Your task to perform on an android device: Open CNN.com Image 0: 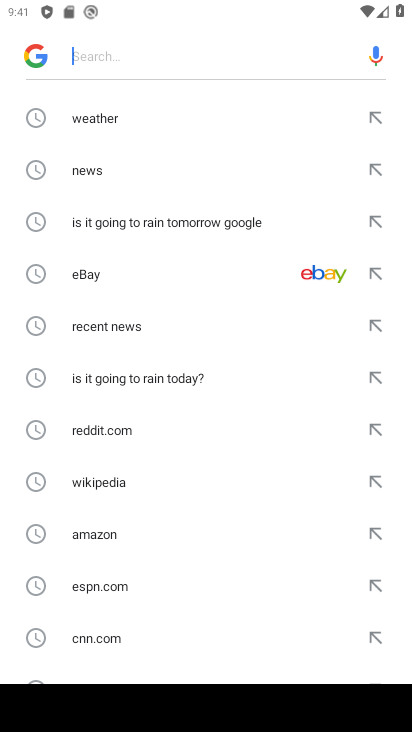
Step 0: press home button
Your task to perform on an android device: Open CNN.com Image 1: 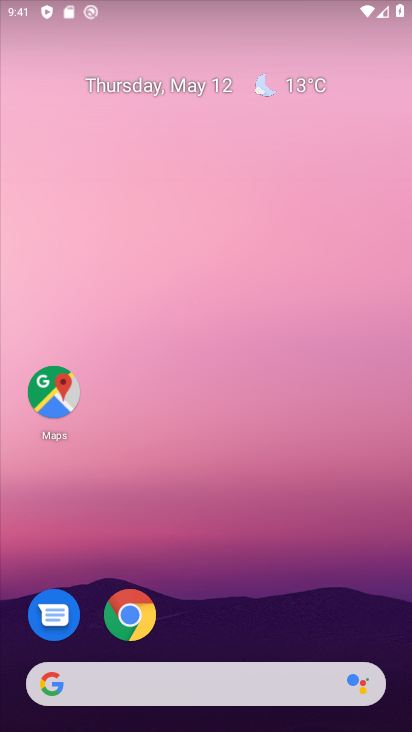
Step 1: drag from (265, 579) to (258, 69)
Your task to perform on an android device: Open CNN.com Image 2: 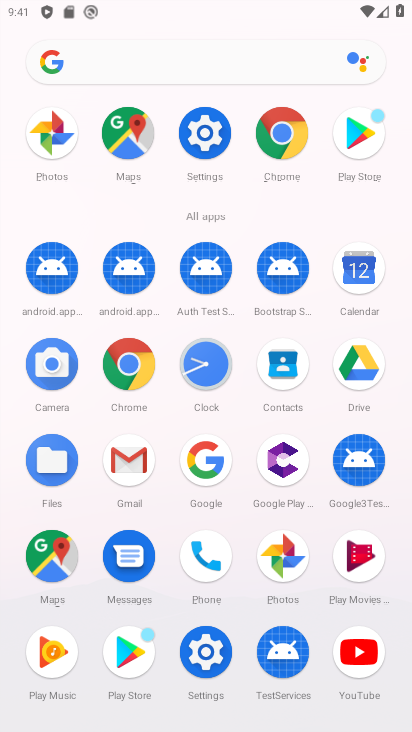
Step 2: click (280, 157)
Your task to perform on an android device: Open CNN.com Image 3: 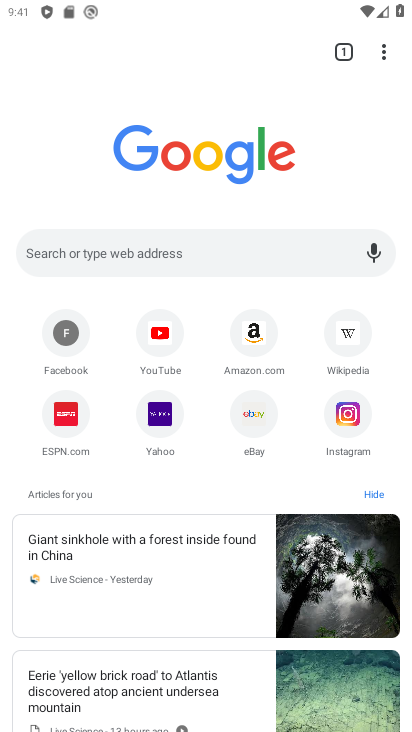
Step 3: click (96, 250)
Your task to perform on an android device: Open CNN.com Image 4: 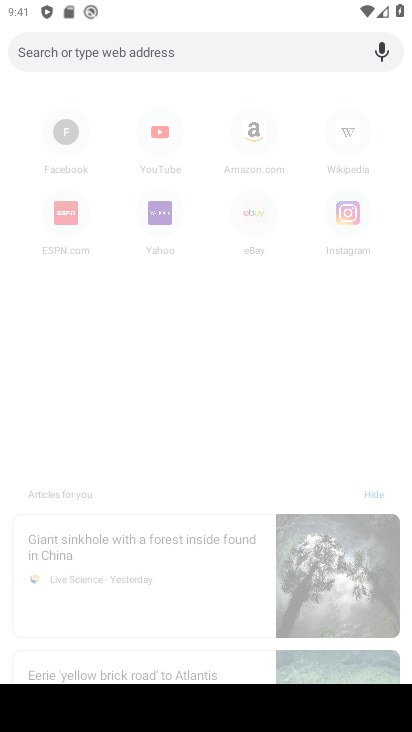
Step 4: type "cnn.com"
Your task to perform on an android device: Open CNN.com Image 5: 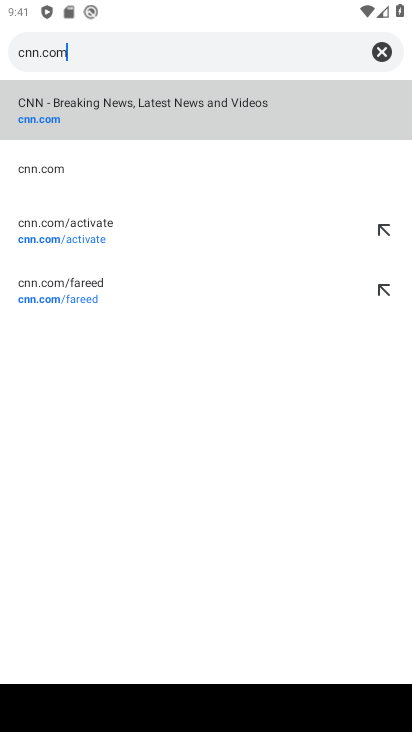
Step 5: click (76, 121)
Your task to perform on an android device: Open CNN.com Image 6: 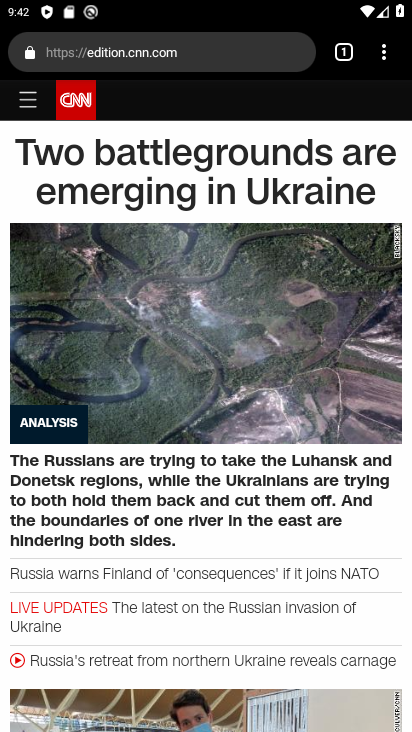
Step 6: task complete